Your task to perform on an android device: Open privacy settings Image 0: 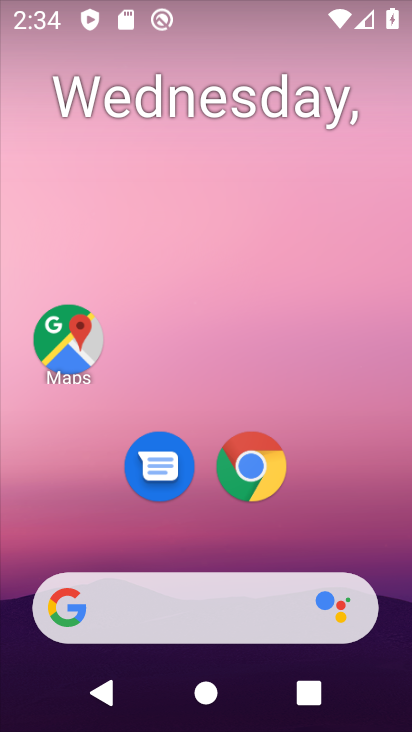
Step 0: drag from (325, 486) to (301, 144)
Your task to perform on an android device: Open privacy settings Image 1: 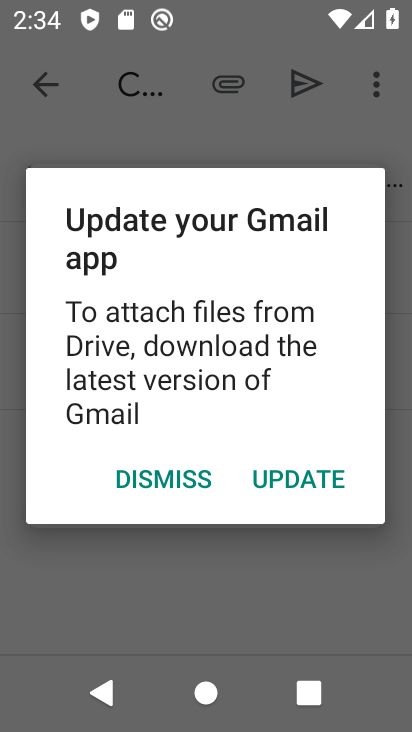
Step 1: press home button
Your task to perform on an android device: Open privacy settings Image 2: 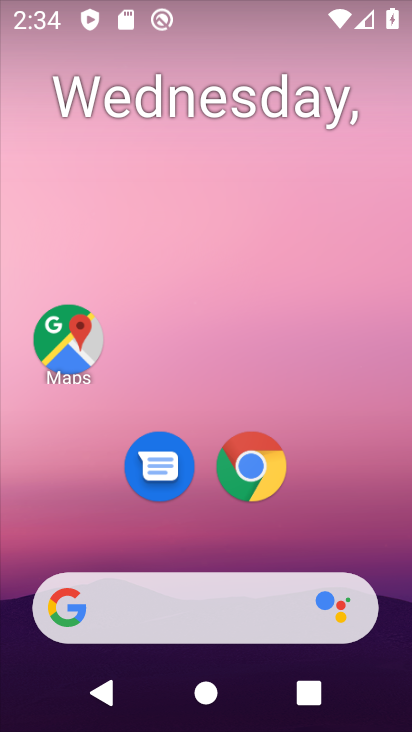
Step 2: click (270, 472)
Your task to perform on an android device: Open privacy settings Image 3: 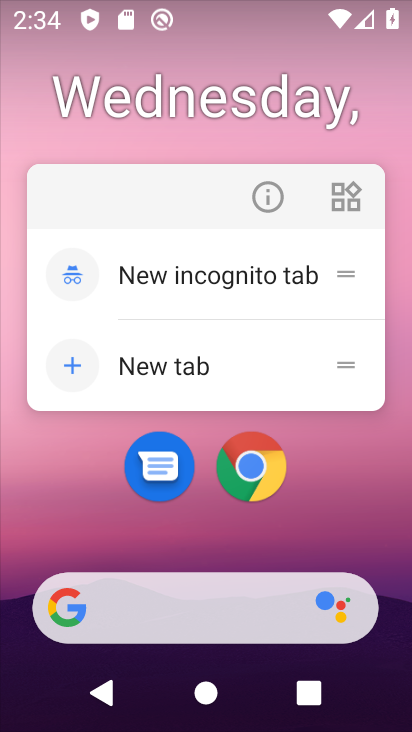
Step 3: click (270, 475)
Your task to perform on an android device: Open privacy settings Image 4: 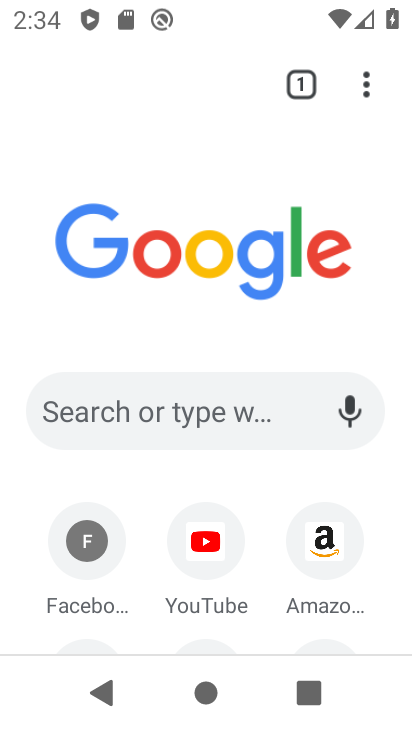
Step 4: click (363, 82)
Your task to perform on an android device: Open privacy settings Image 5: 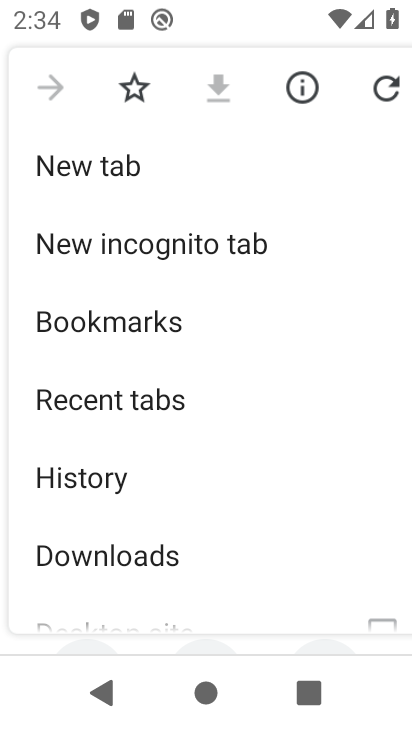
Step 5: drag from (255, 545) to (242, 118)
Your task to perform on an android device: Open privacy settings Image 6: 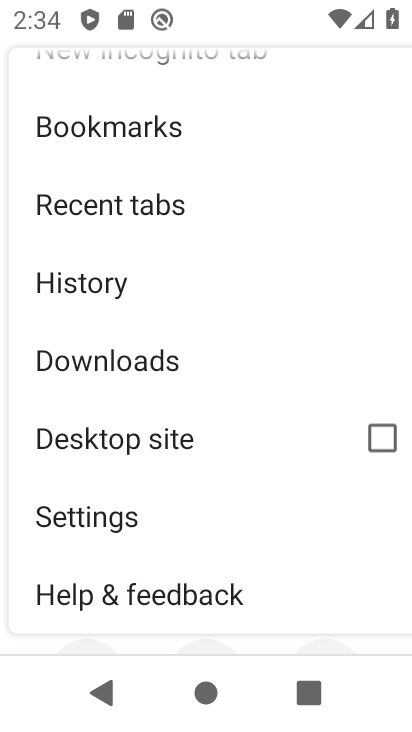
Step 6: click (162, 518)
Your task to perform on an android device: Open privacy settings Image 7: 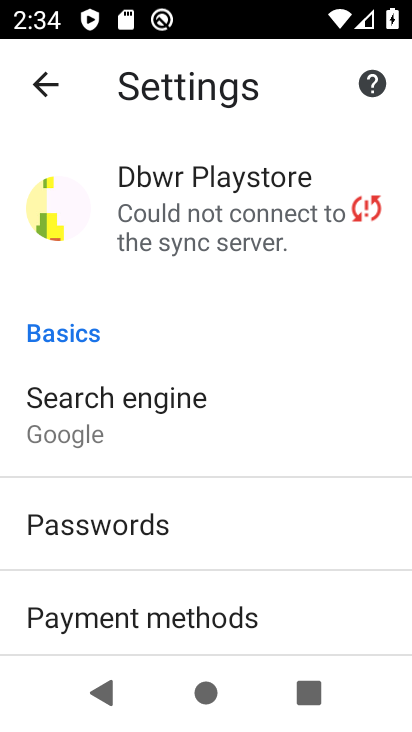
Step 7: drag from (256, 516) to (308, 103)
Your task to perform on an android device: Open privacy settings Image 8: 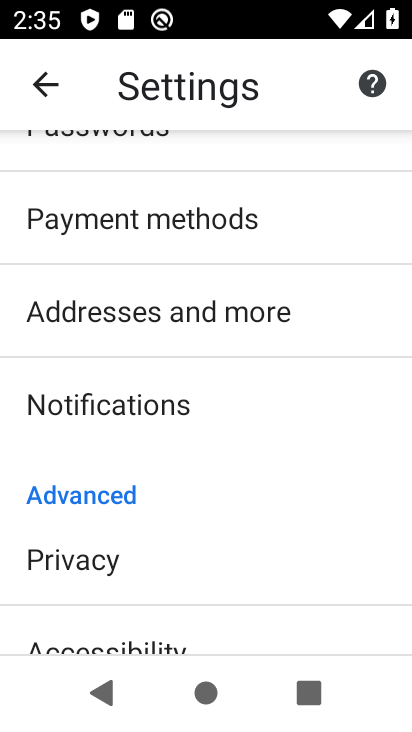
Step 8: click (181, 578)
Your task to perform on an android device: Open privacy settings Image 9: 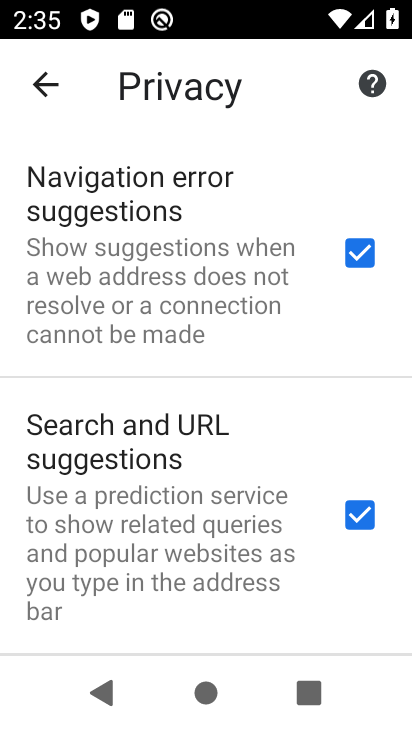
Step 9: task complete